Your task to perform on an android device: open chrome and create a bookmark for the current page Image 0: 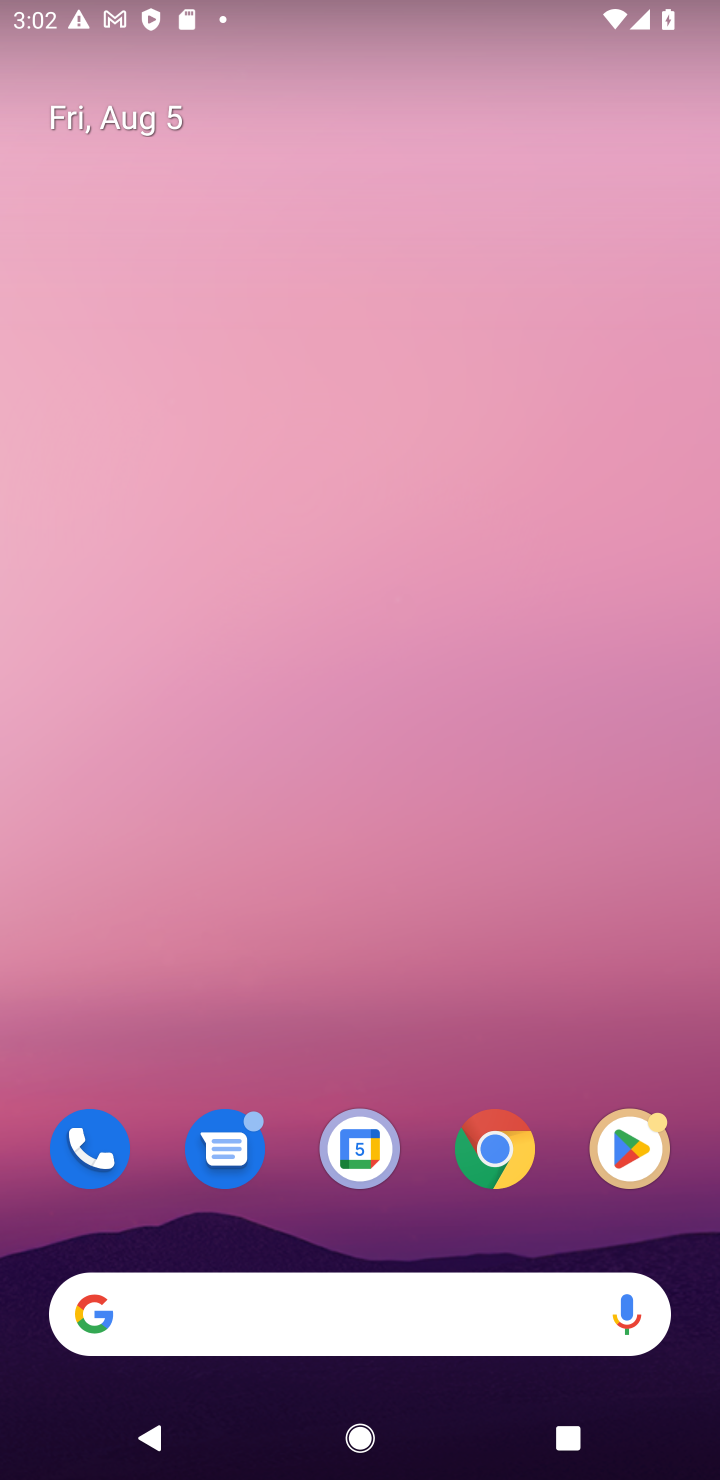
Step 0: click (489, 1134)
Your task to perform on an android device: open chrome and create a bookmark for the current page Image 1: 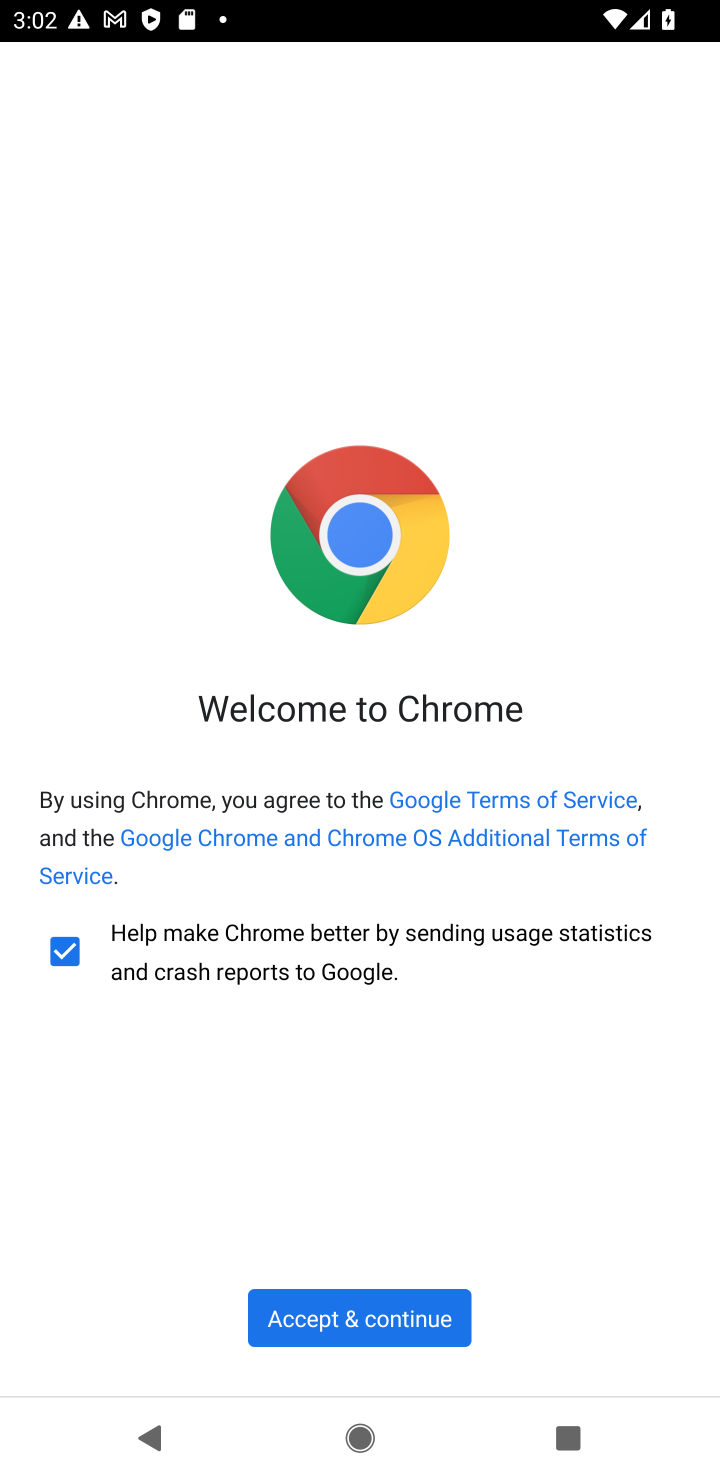
Step 1: click (326, 1333)
Your task to perform on an android device: open chrome and create a bookmark for the current page Image 2: 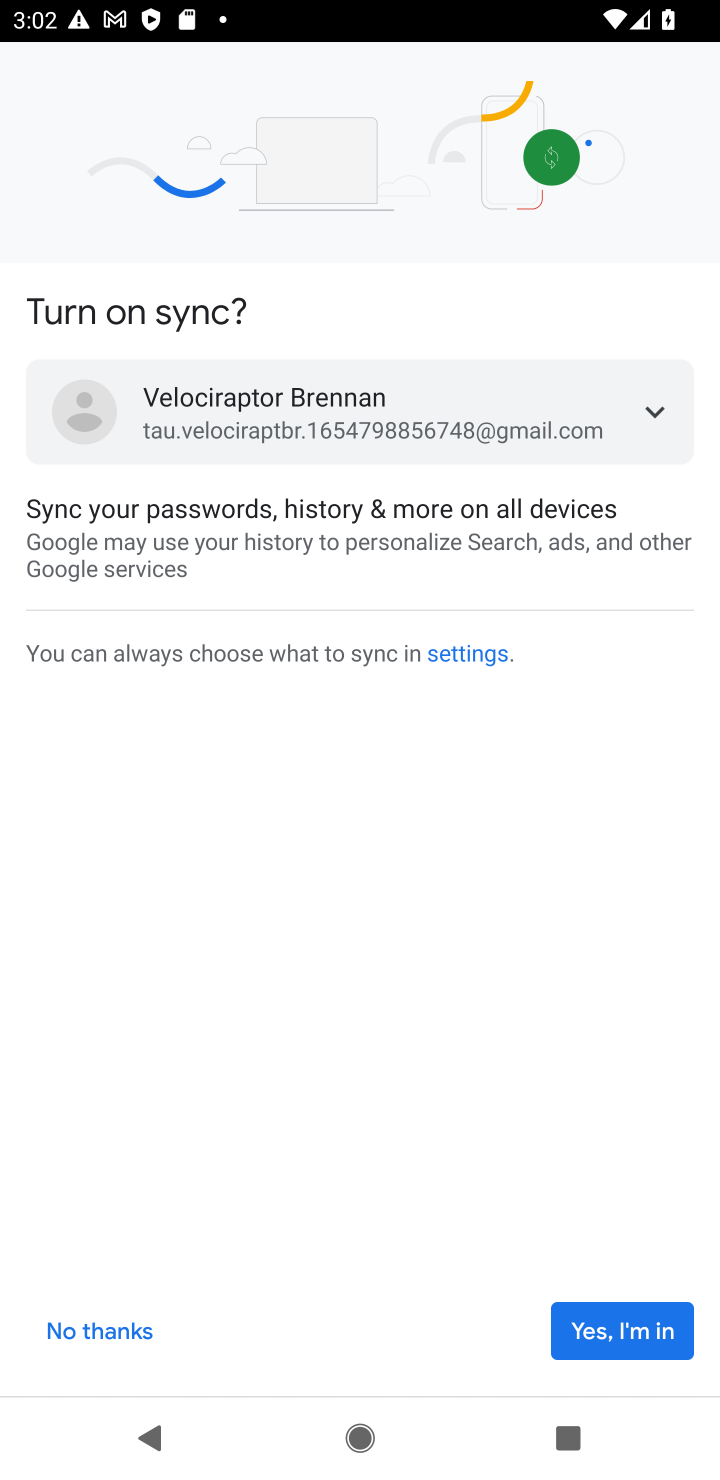
Step 2: click (71, 1331)
Your task to perform on an android device: open chrome and create a bookmark for the current page Image 3: 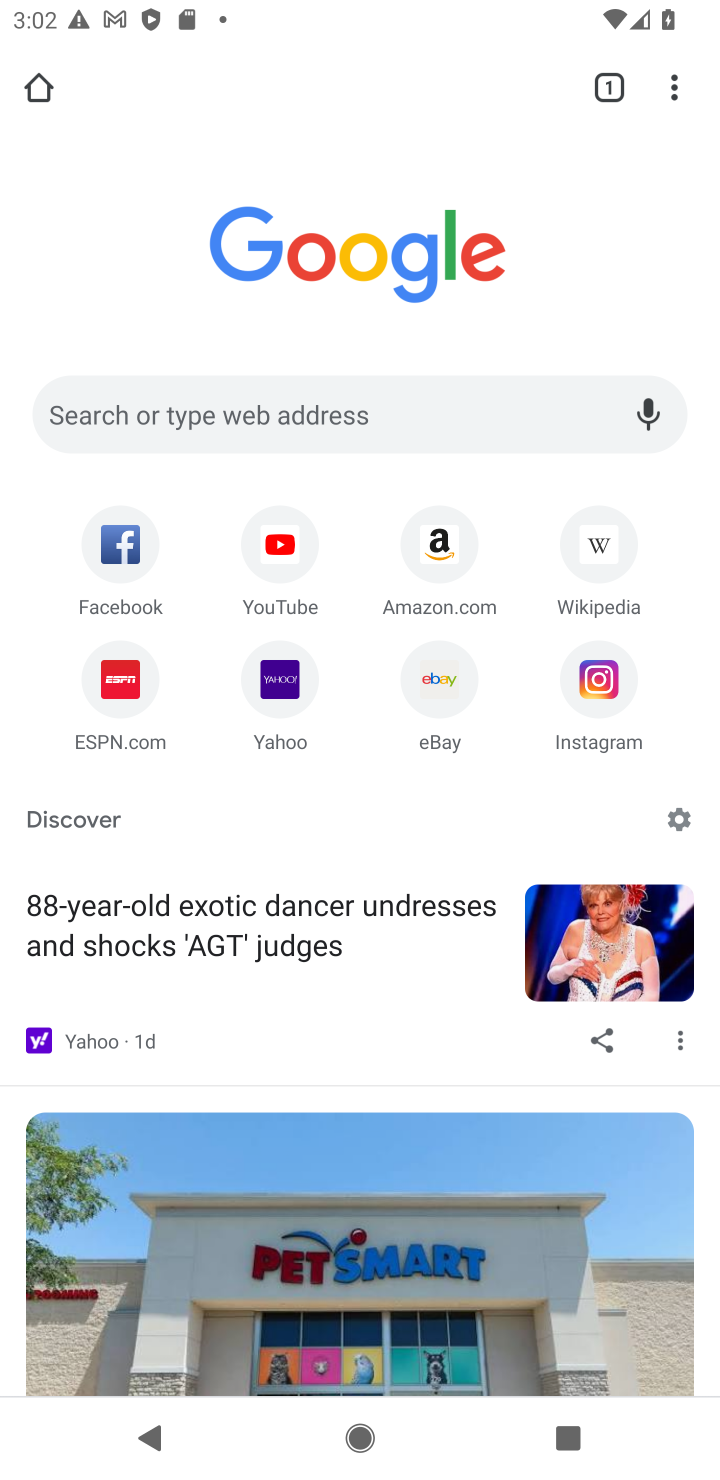
Step 3: drag from (684, 84) to (466, 495)
Your task to perform on an android device: open chrome and create a bookmark for the current page Image 4: 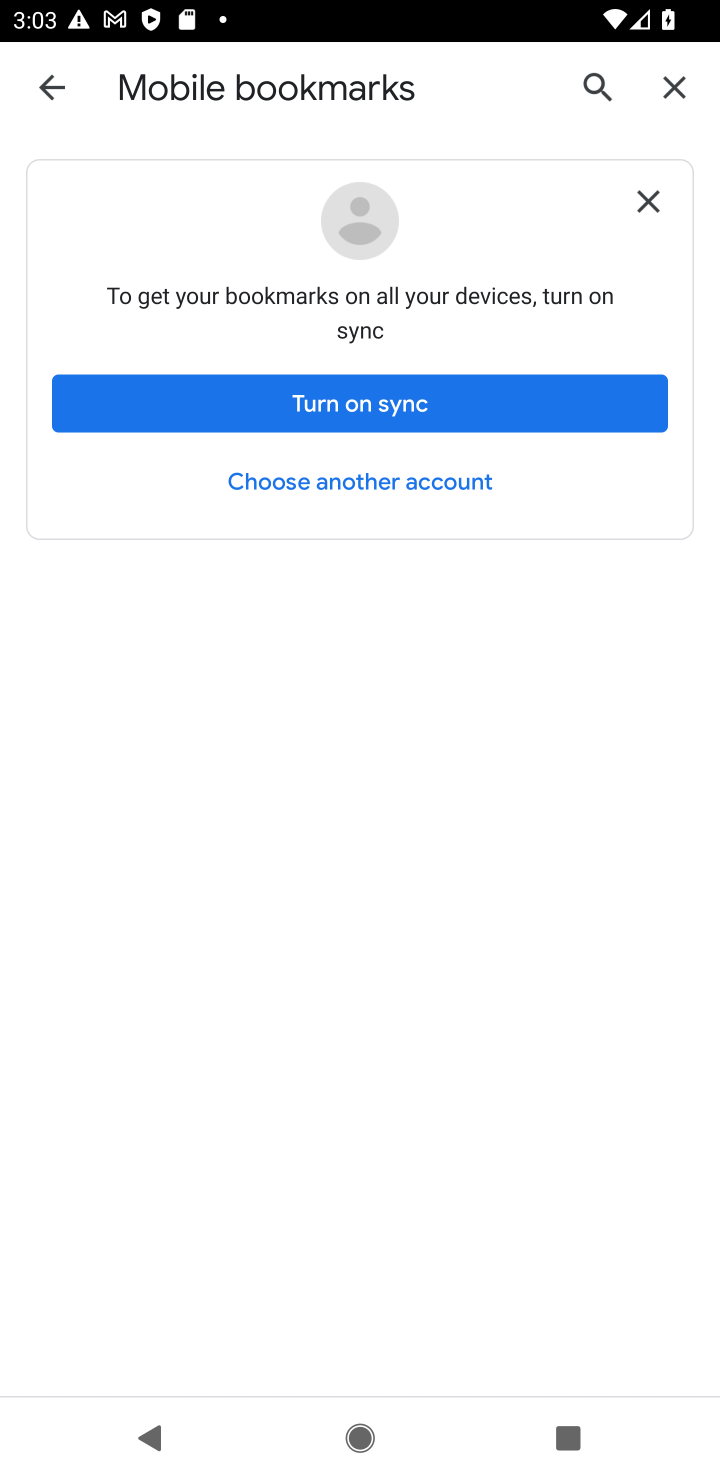
Step 4: click (38, 77)
Your task to perform on an android device: open chrome and create a bookmark for the current page Image 5: 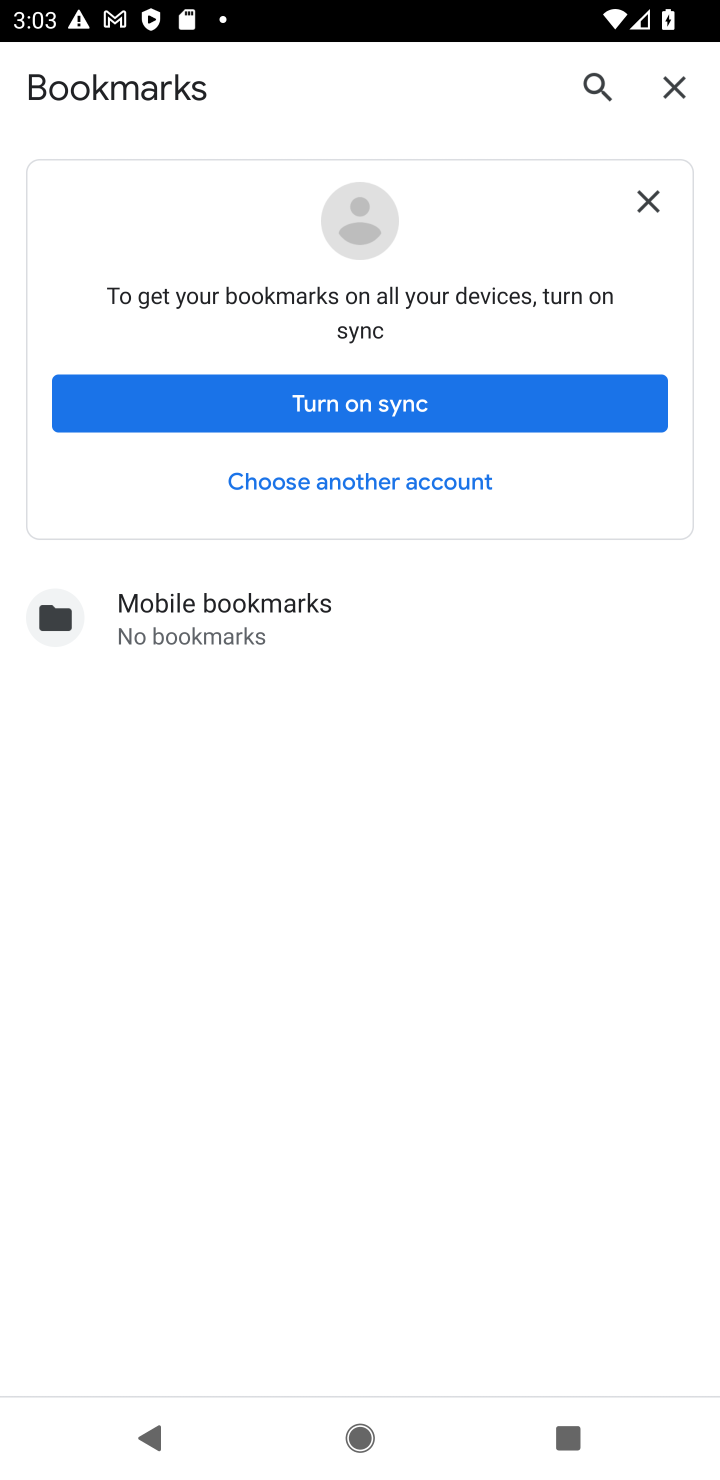
Step 5: press back button
Your task to perform on an android device: open chrome and create a bookmark for the current page Image 6: 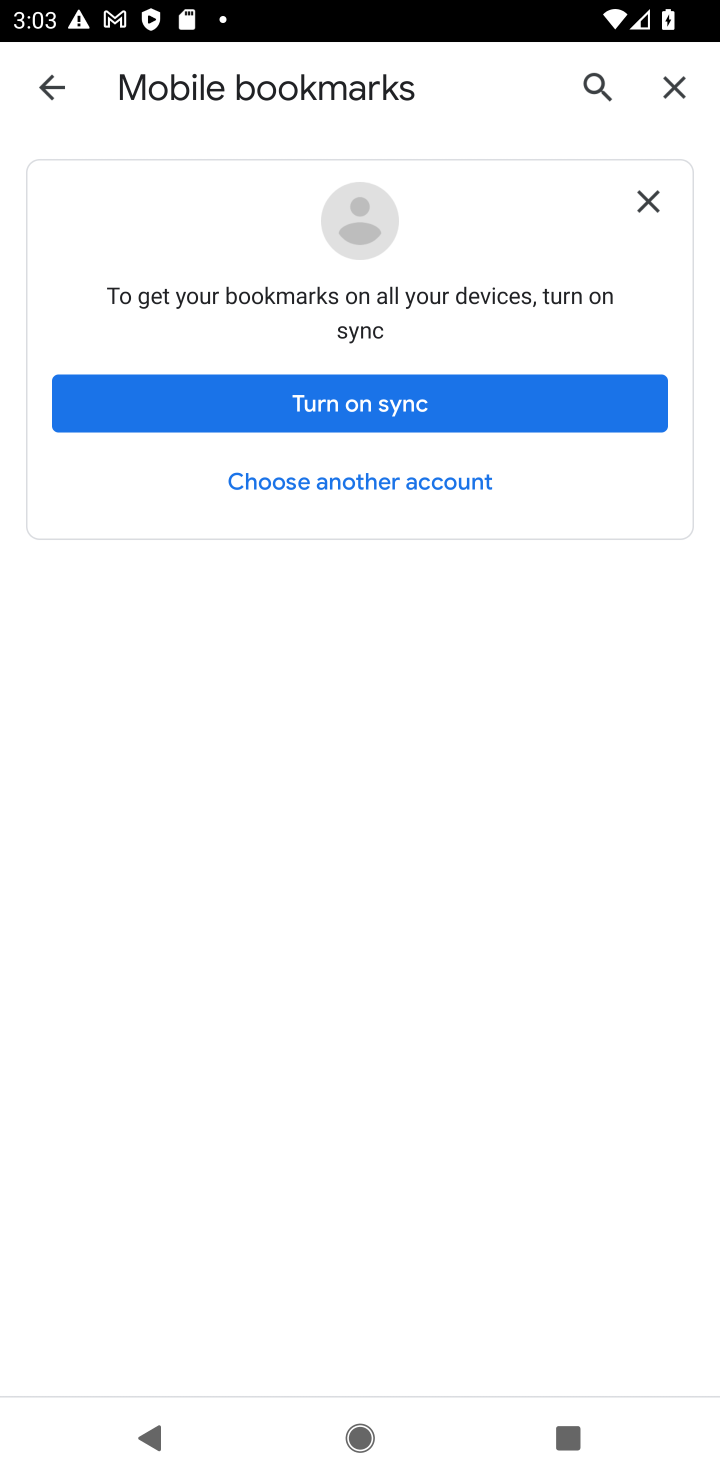
Step 6: click (682, 85)
Your task to perform on an android device: open chrome and create a bookmark for the current page Image 7: 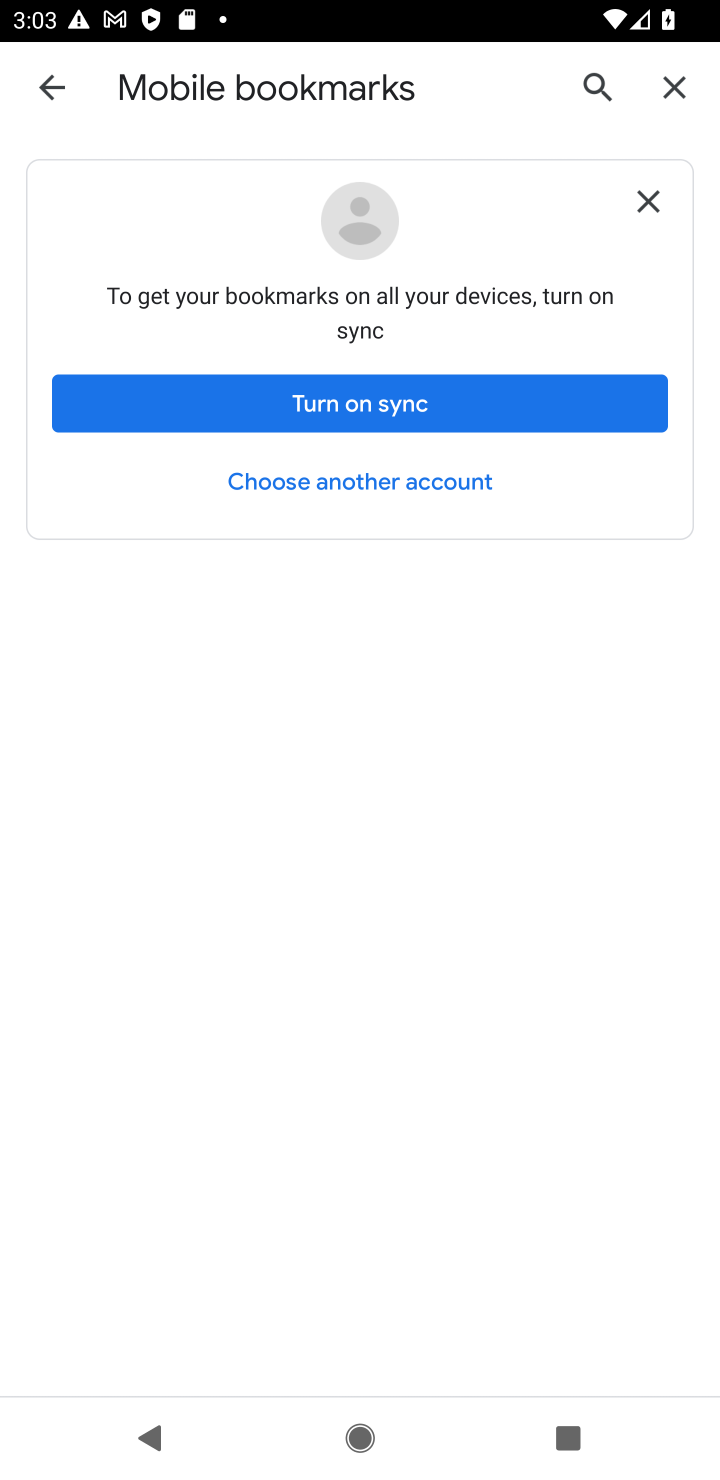
Step 7: click (671, 85)
Your task to perform on an android device: open chrome and create a bookmark for the current page Image 8: 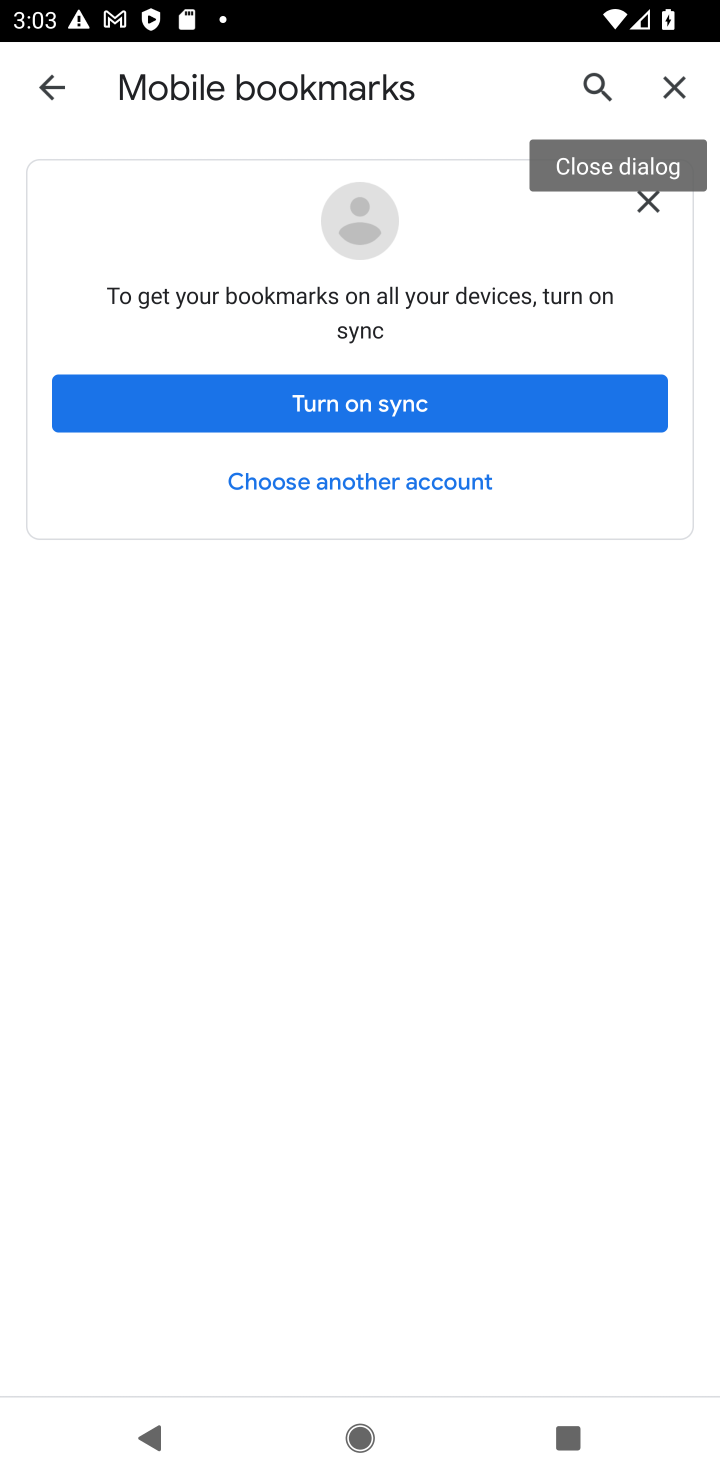
Step 8: click (57, 76)
Your task to perform on an android device: open chrome and create a bookmark for the current page Image 9: 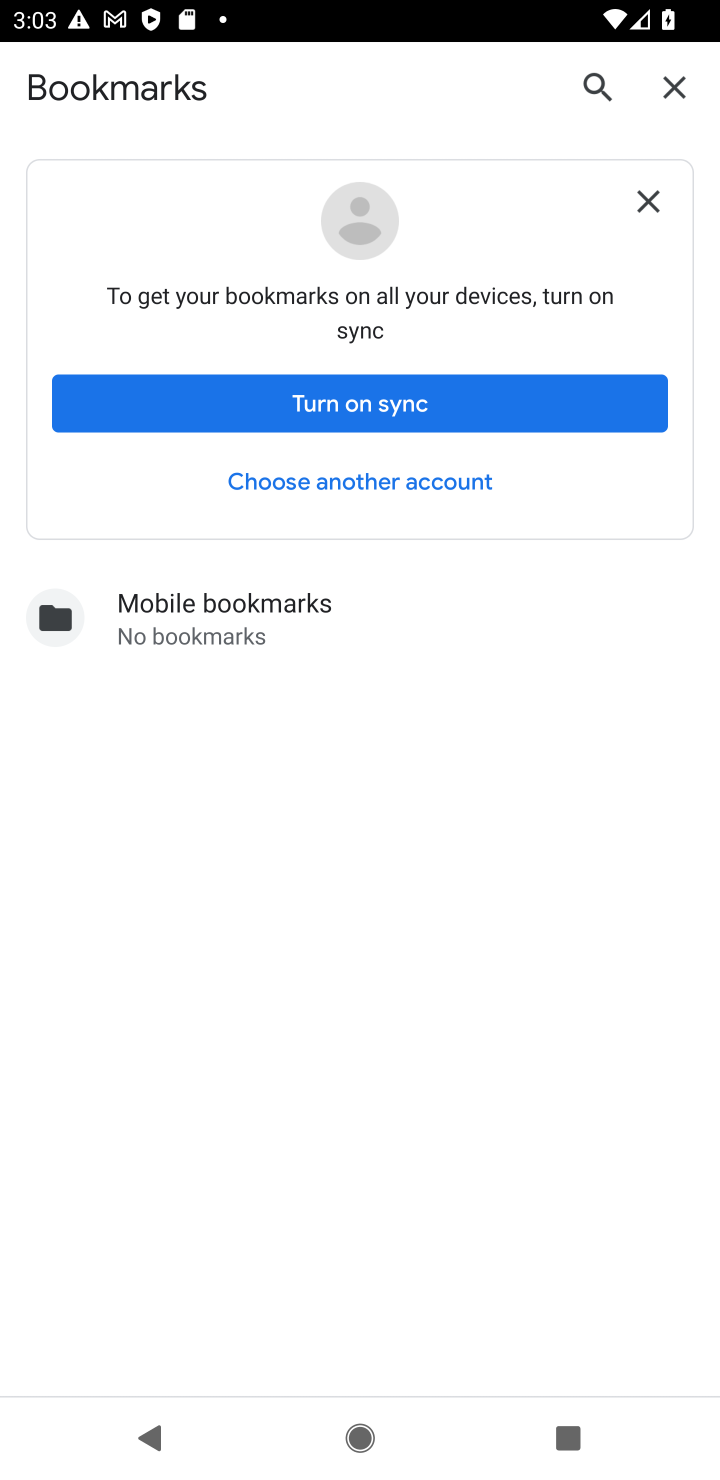
Step 9: press back button
Your task to perform on an android device: open chrome and create a bookmark for the current page Image 10: 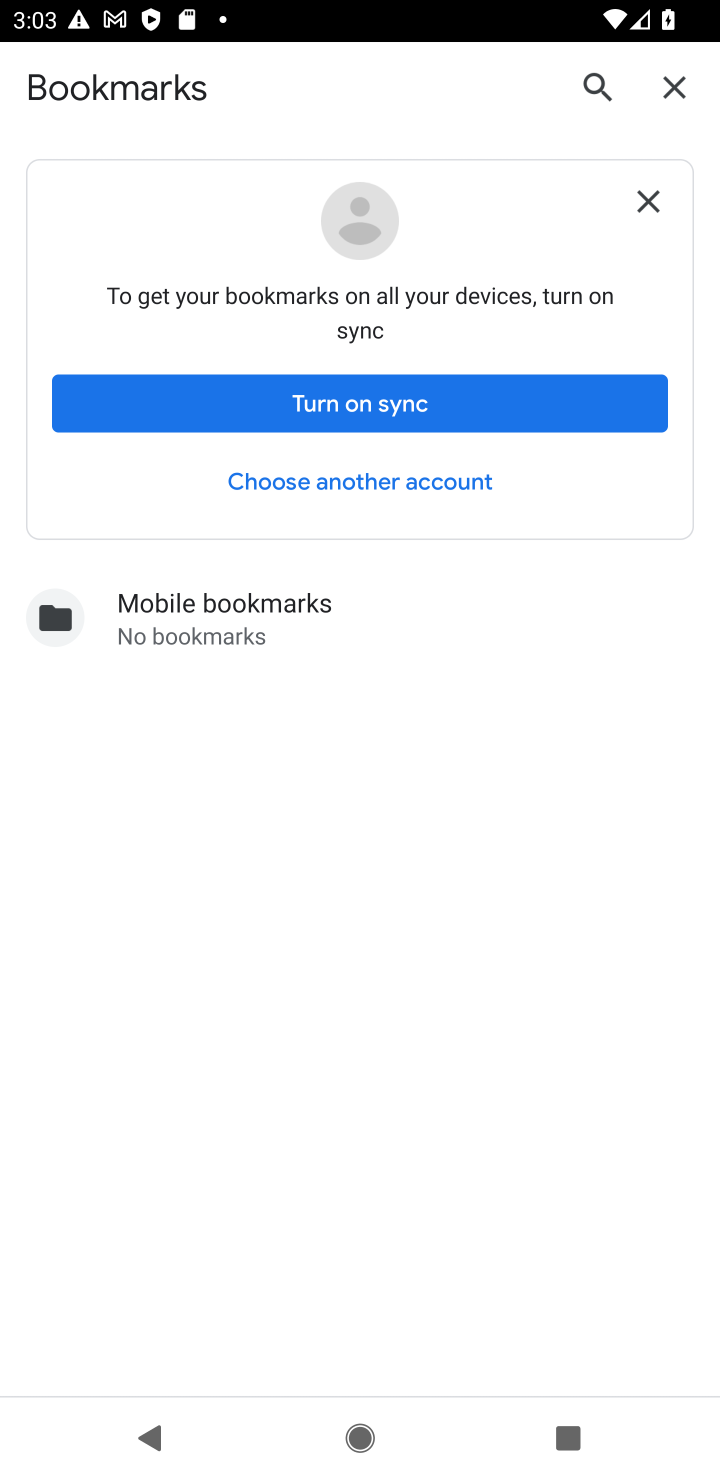
Step 10: press back button
Your task to perform on an android device: open chrome and create a bookmark for the current page Image 11: 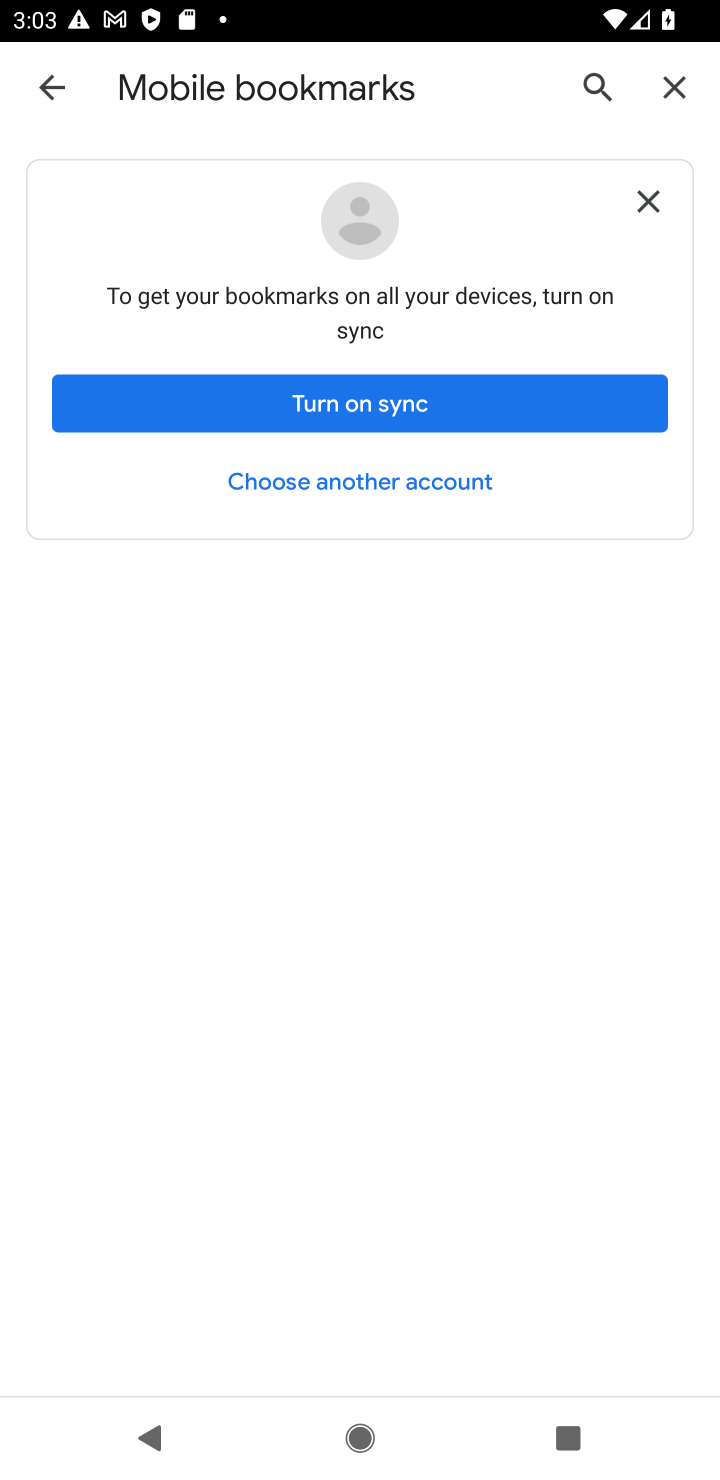
Step 11: press back button
Your task to perform on an android device: open chrome and create a bookmark for the current page Image 12: 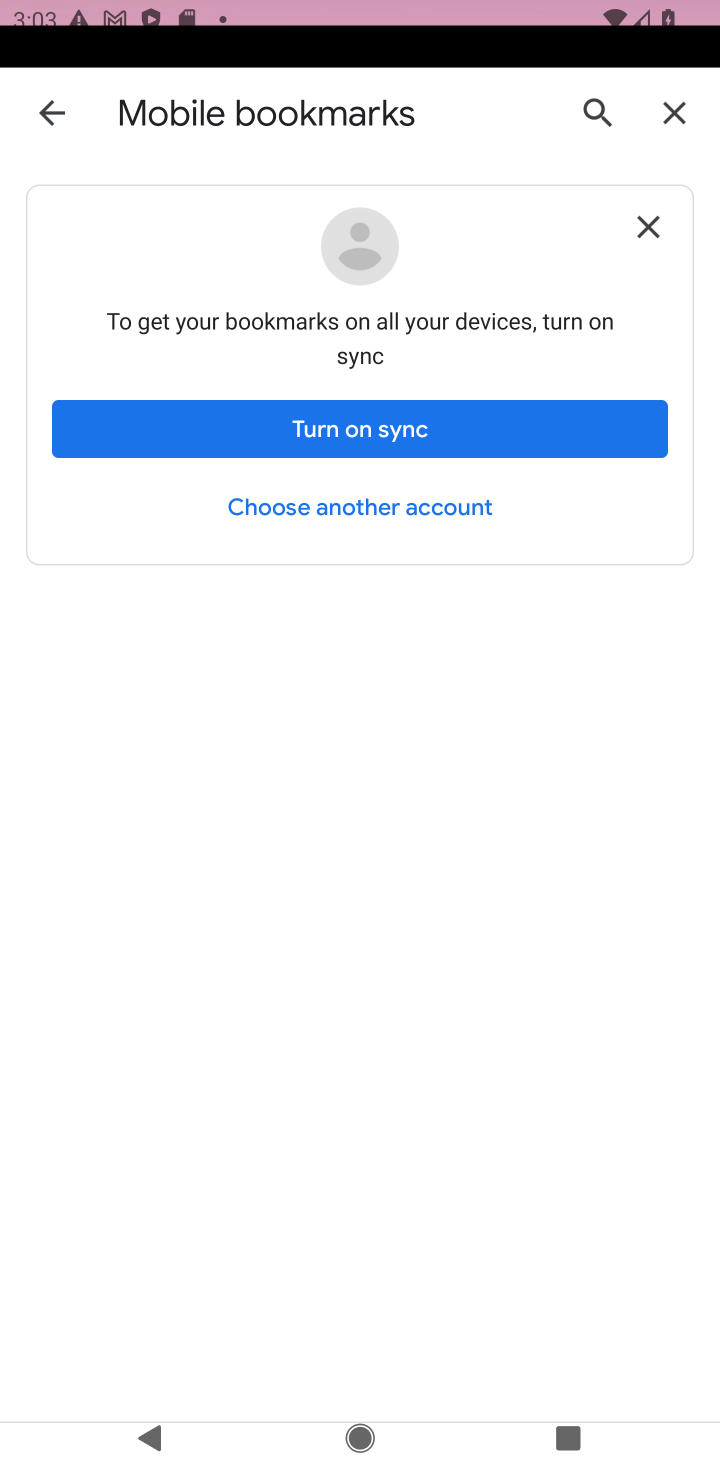
Step 12: press home button
Your task to perform on an android device: open chrome and create a bookmark for the current page Image 13: 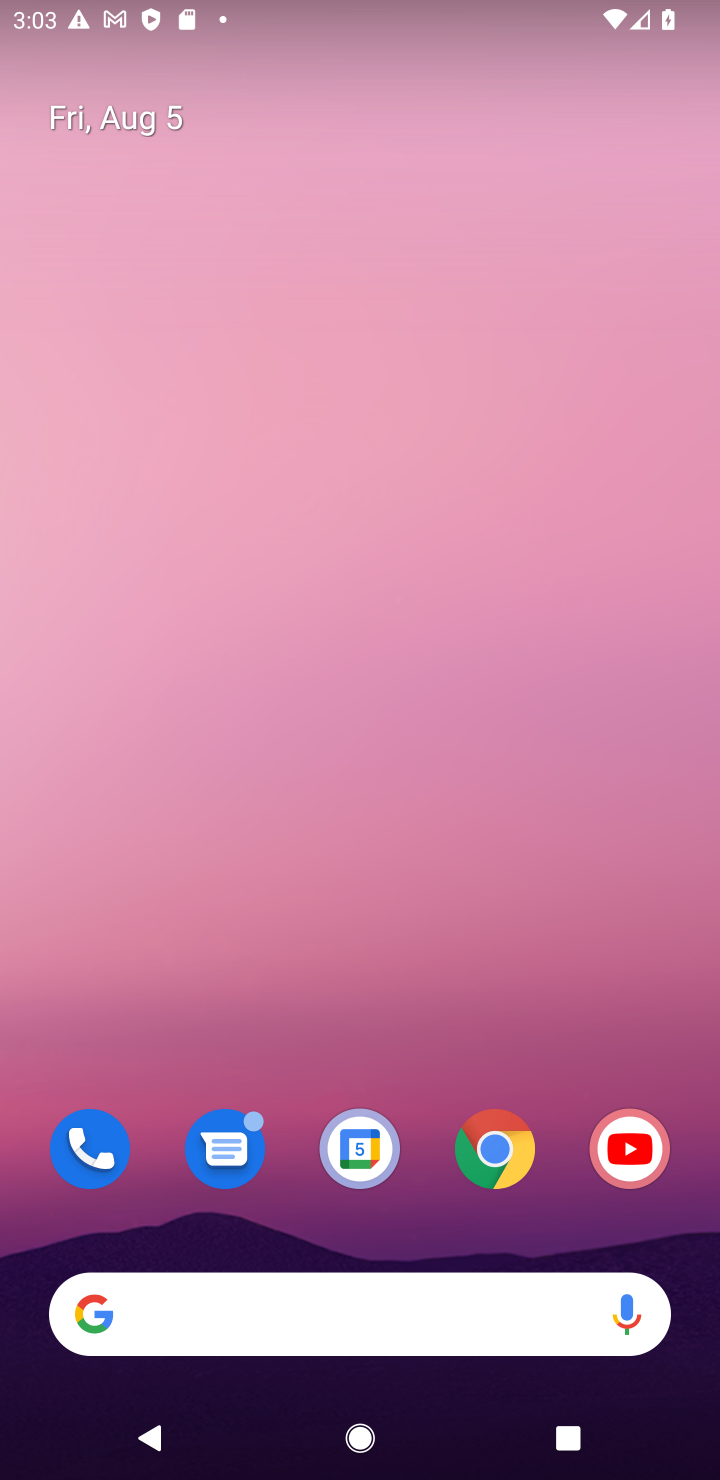
Step 13: click (523, 1173)
Your task to perform on an android device: open chrome and create a bookmark for the current page Image 14: 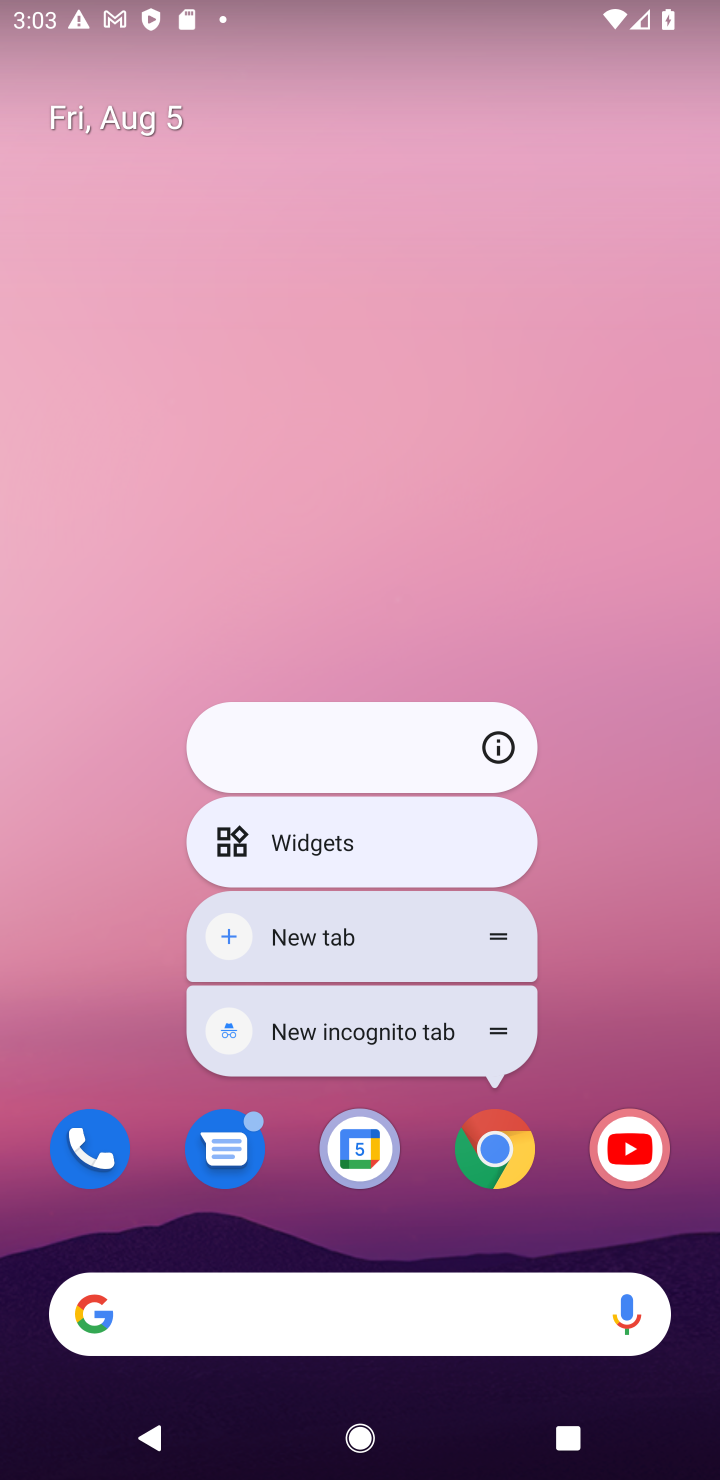
Step 14: click (479, 1134)
Your task to perform on an android device: open chrome and create a bookmark for the current page Image 15: 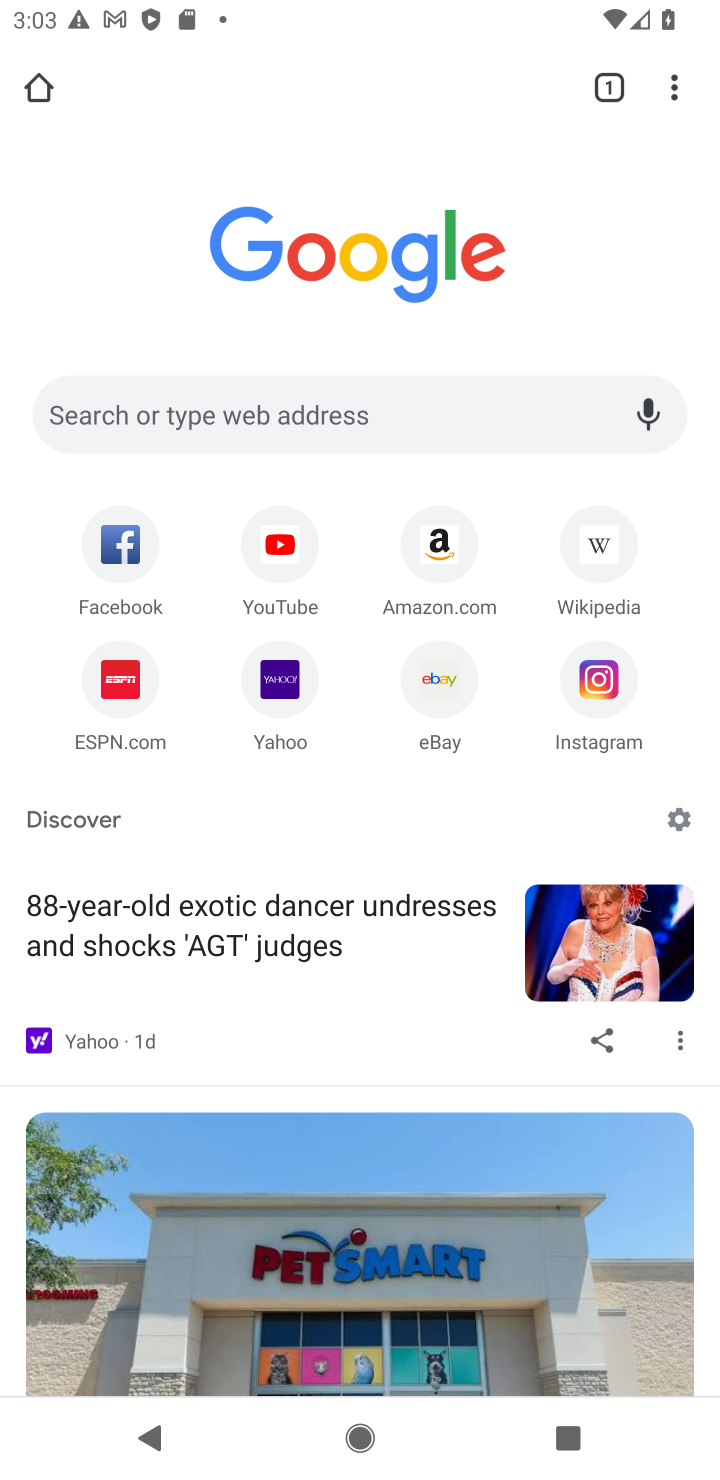
Step 15: click (678, 72)
Your task to perform on an android device: open chrome and create a bookmark for the current page Image 16: 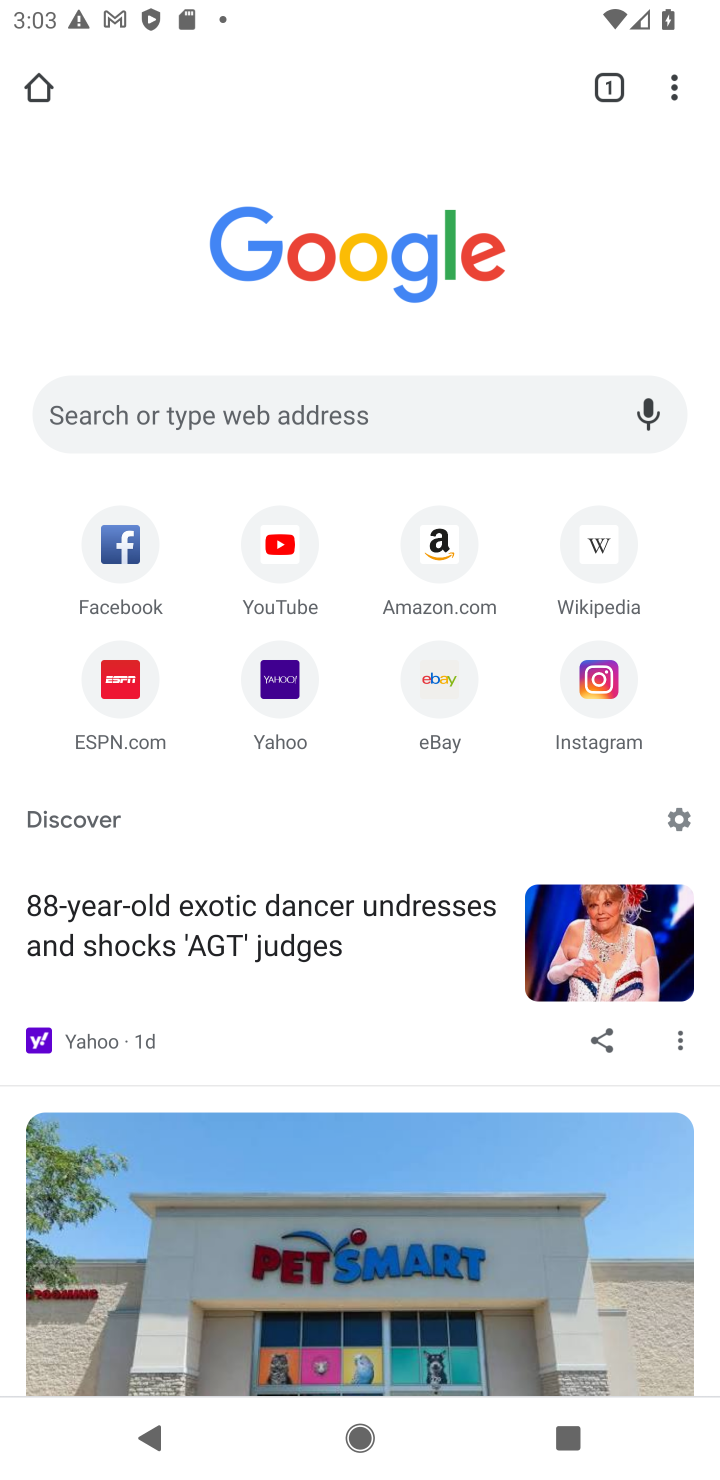
Step 16: task complete